Your task to perform on an android device: Clear the cart on amazon. Add "bose soundsport free" to the cart on amazon Image 0: 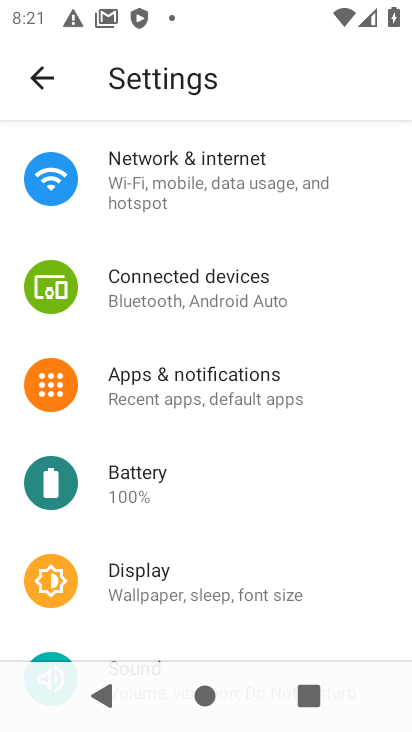
Step 0: press home button
Your task to perform on an android device: Clear the cart on amazon. Add "bose soundsport free" to the cart on amazon Image 1: 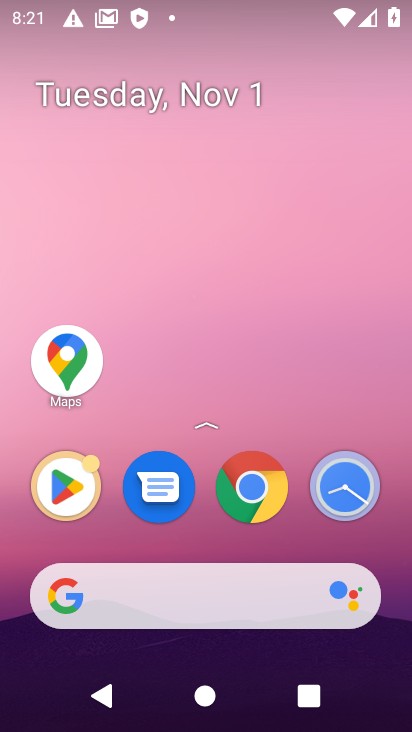
Step 1: click (255, 487)
Your task to perform on an android device: Clear the cart on amazon. Add "bose soundsport free" to the cart on amazon Image 2: 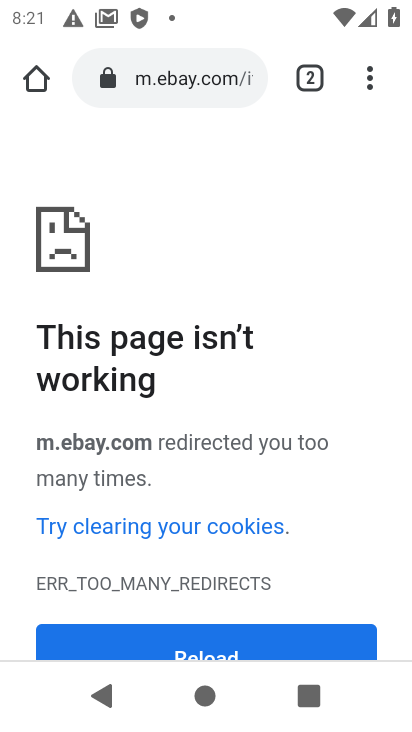
Step 2: click (276, 46)
Your task to perform on an android device: Clear the cart on amazon. Add "bose soundsport free" to the cart on amazon Image 3: 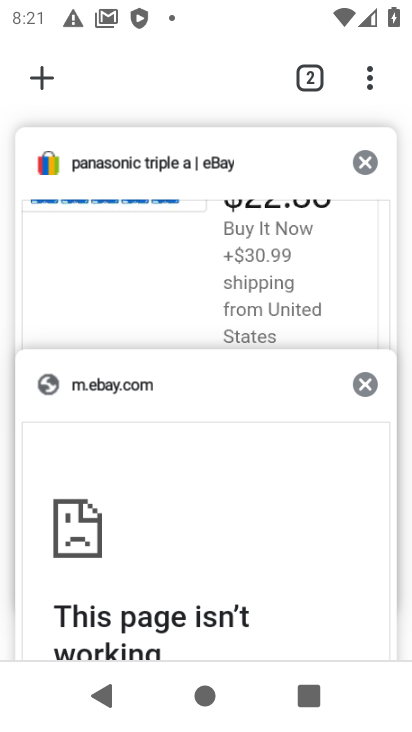
Step 3: click (361, 156)
Your task to perform on an android device: Clear the cart on amazon. Add "bose soundsport free" to the cart on amazon Image 4: 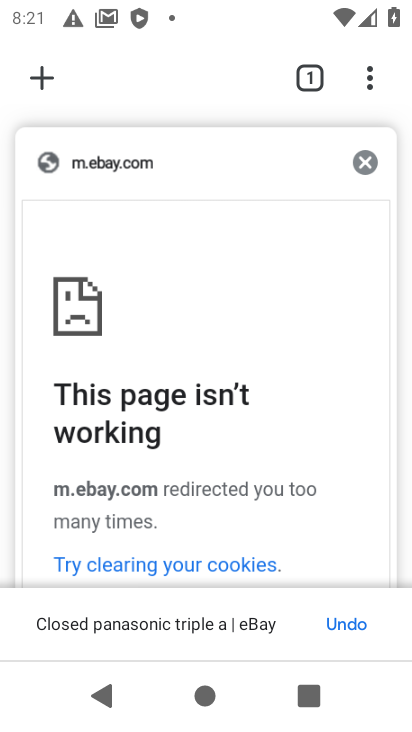
Step 4: click (249, 158)
Your task to perform on an android device: Clear the cart on amazon. Add "bose soundsport free" to the cart on amazon Image 5: 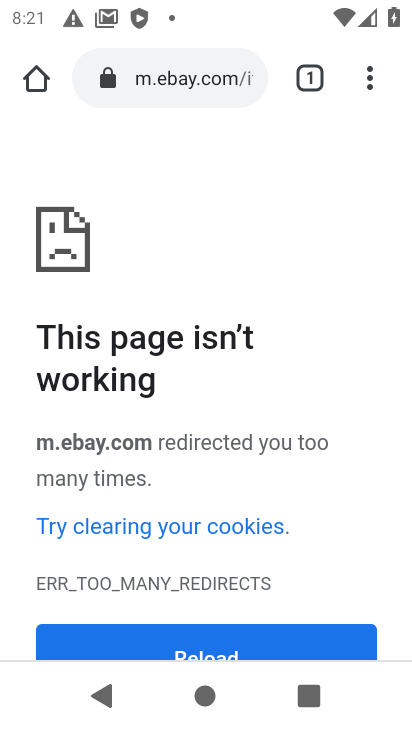
Step 5: click (221, 80)
Your task to perform on an android device: Clear the cart on amazon. Add "bose soundsport free" to the cart on amazon Image 6: 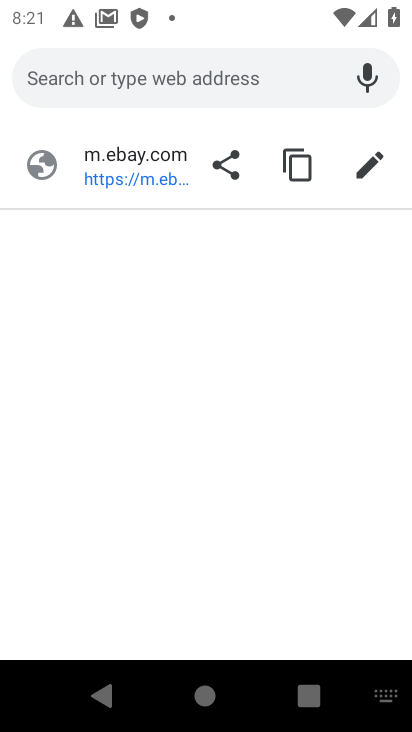
Step 6: press enter
Your task to perform on an android device: Clear the cart on amazon. Add "bose soundsport free" to the cart on amazon Image 7: 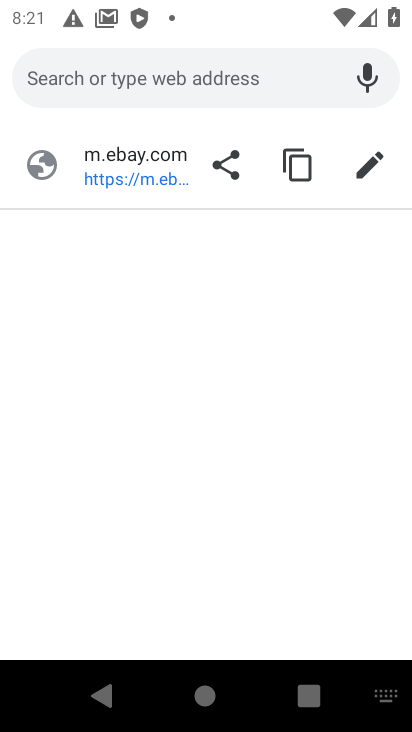
Step 7: type "amazon"
Your task to perform on an android device: Clear the cart on amazon. Add "bose soundsport free" to the cart on amazon Image 8: 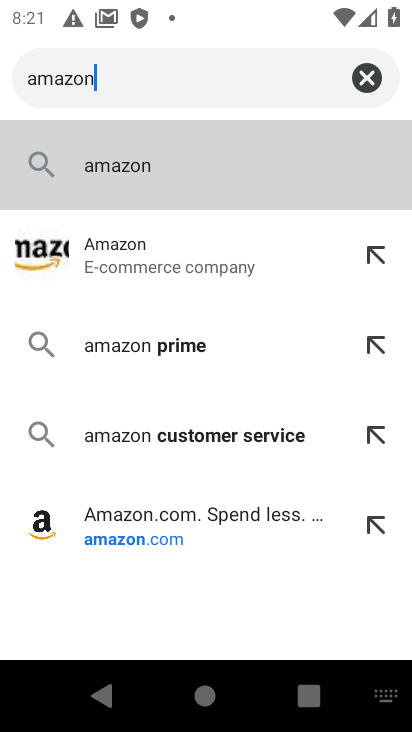
Step 8: click (109, 248)
Your task to perform on an android device: Clear the cart on amazon. Add "bose soundsport free" to the cart on amazon Image 9: 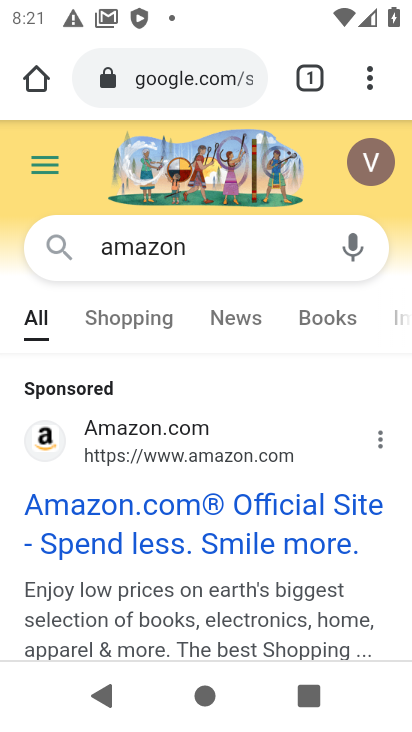
Step 9: click (125, 436)
Your task to perform on an android device: Clear the cart on amazon. Add "bose soundsport free" to the cart on amazon Image 10: 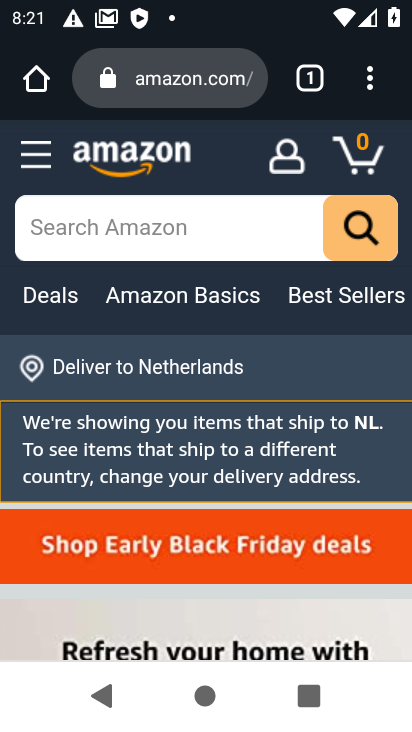
Step 10: click (362, 158)
Your task to perform on an android device: Clear the cart on amazon. Add "bose soundsport free" to the cart on amazon Image 11: 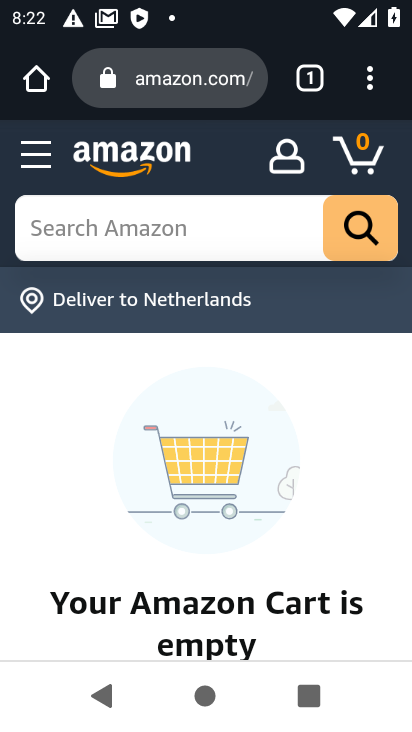
Step 11: click (230, 224)
Your task to perform on an android device: Clear the cart on amazon. Add "bose soundsport free" to the cart on amazon Image 12: 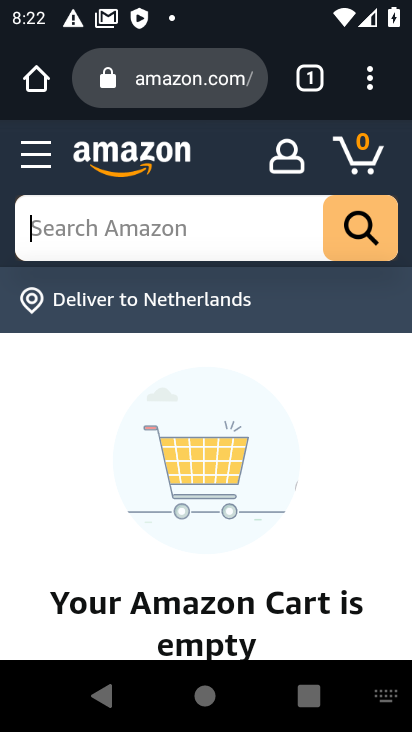
Step 12: press enter
Your task to perform on an android device: Clear the cart on amazon. Add "bose soundsport free" to the cart on amazon Image 13: 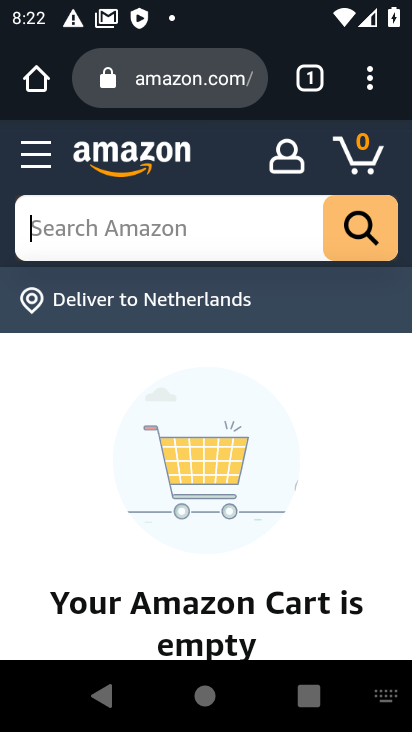
Step 13: type "bose soundsport free"
Your task to perform on an android device: Clear the cart on amazon. Add "bose soundsport free" to the cart on amazon Image 14: 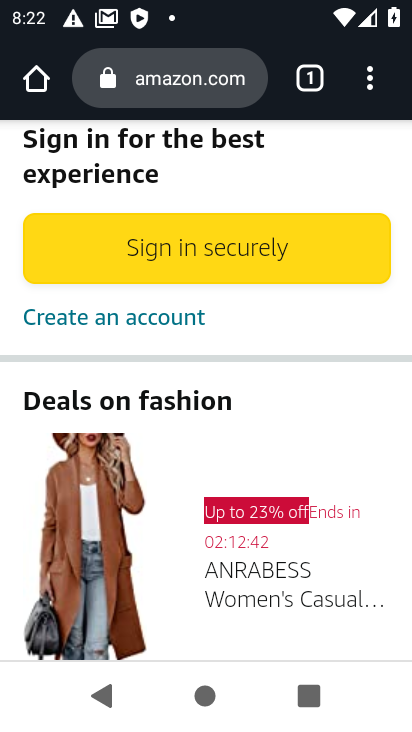
Step 14: drag from (180, 168) to (344, 532)
Your task to perform on an android device: Clear the cart on amazon. Add "bose soundsport free" to the cart on amazon Image 15: 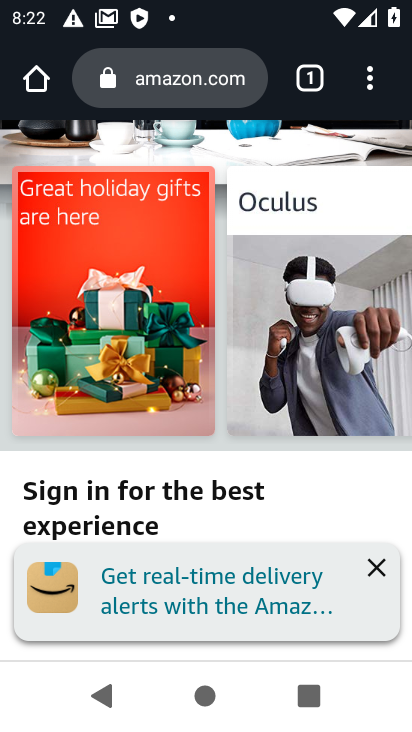
Step 15: drag from (268, 141) to (402, 499)
Your task to perform on an android device: Clear the cart on amazon. Add "bose soundsport free" to the cart on amazon Image 16: 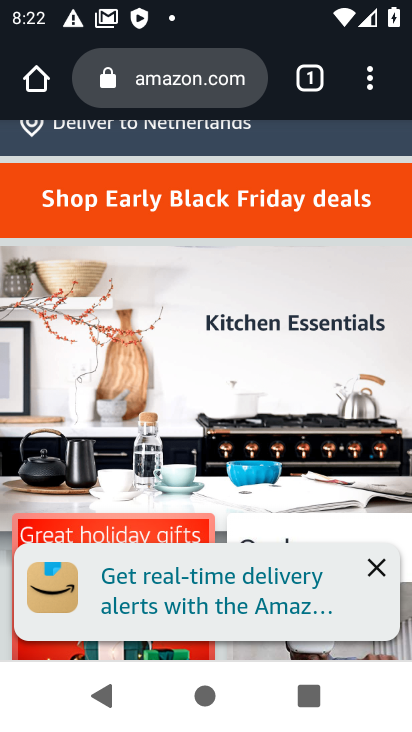
Step 16: drag from (315, 142) to (374, 486)
Your task to perform on an android device: Clear the cart on amazon. Add "bose soundsport free" to the cart on amazon Image 17: 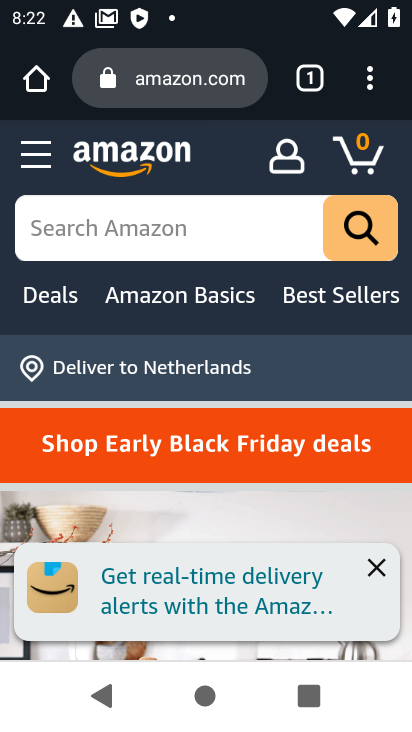
Step 17: click (228, 228)
Your task to perform on an android device: Clear the cart on amazon. Add "bose soundsport free" to the cart on amazon Image 18: 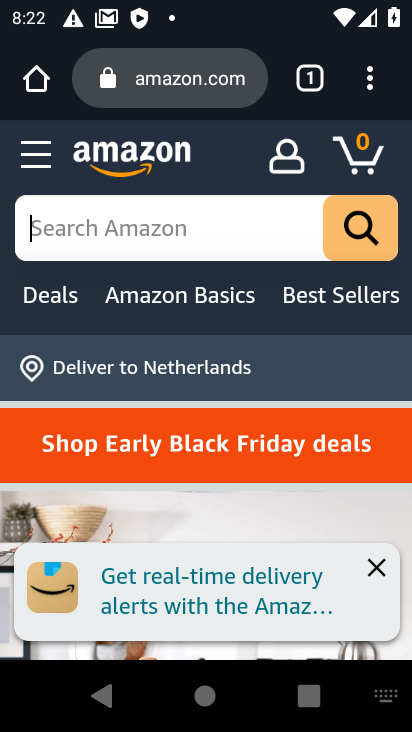
Step 18: press enter
Your task to perform on an android device: Clear the cart on amazon. Add "bose soundsport free" to the cart on amazon Image 19: 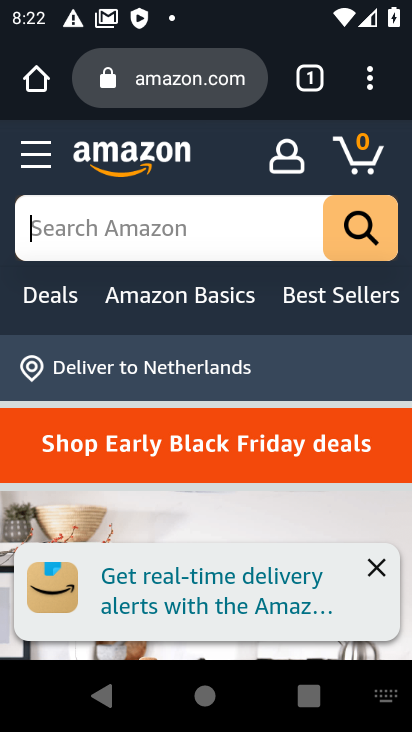
Step 19: type "bose soundsport free"
Your task to perform on an android device: Clear the cart on amazon. Add "bose soundsport free" to the cart on amazon Image 20: 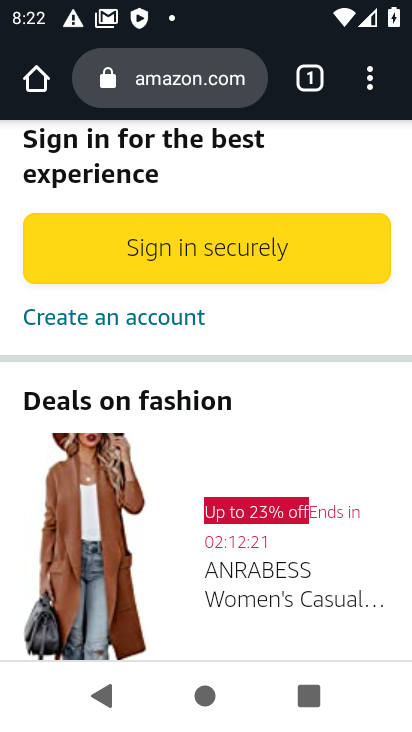
Step 20: drag from (343, 157) to (374, 717)
Your task to perform on an android device: Clear the cart on amazon. Add "bose soundsport free" to the cart on amazon Image 21: 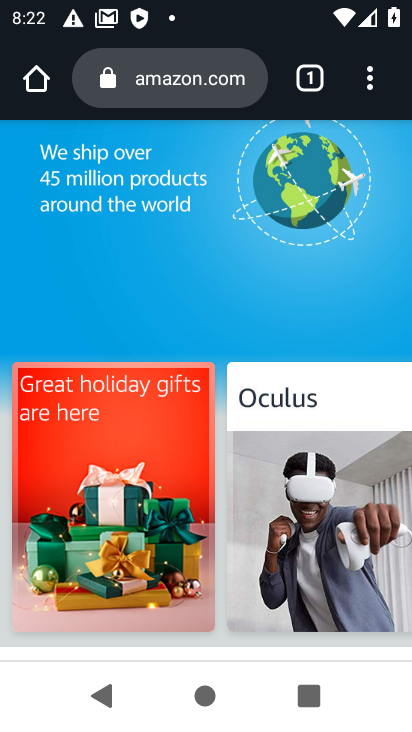
Step 21: drag from (261, 311) to (322, 694)
Your task to perform on an android device: Clear the cart on amazon. Add "bose soundsport free" to the cart on amazon Image 22: 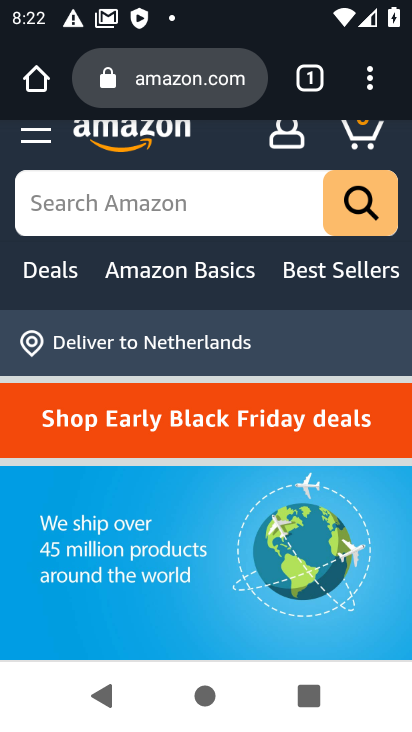
Step 22: click (266, 193)
Your task to perform on an android device: Clear the cart on amazon. Add "bose soundsport free" to the cart on amazon Image 23: 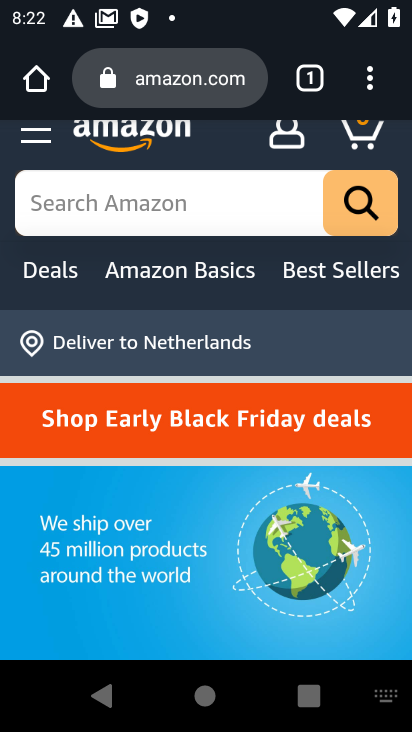
Step 23: press enter
Your task to perform on an android device: Clear the cart on amazon. Add "bose soundsport free" to the cart on amazon Image 24: 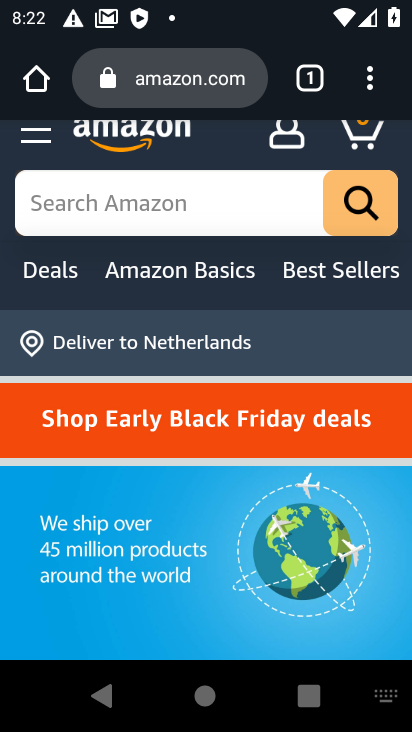
Step 24: type "bose soundsport free"
Your task to perform on an android device: Clear the cart on amazon. Add "bose soundsport free" to the cart on amazon Image 25: 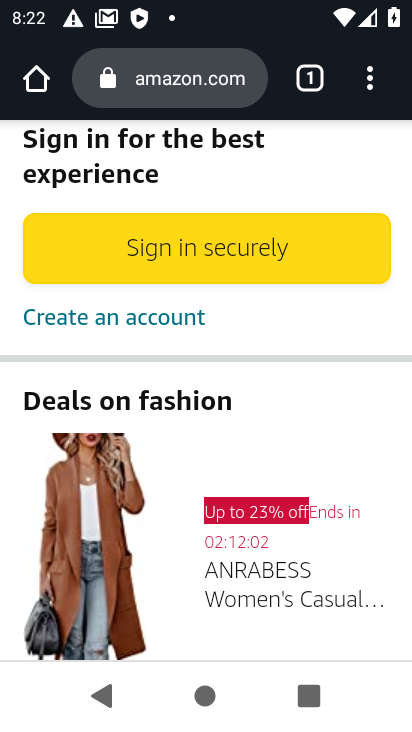
Step 25: click (220, 251)
Your task to perform on an android device: Clear the cart on amazon. Add "bose soundsport free" to the cart on amazon Image 26: 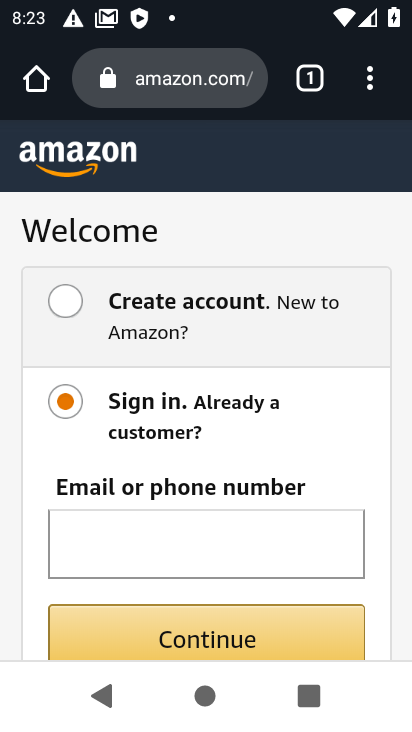
Step 26: task complete